Your task to perform on an android device: find snoozed emails in the gmail app Image 0: 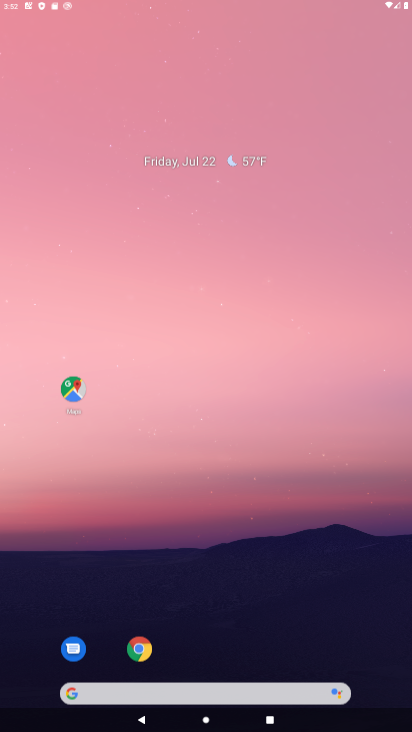
Step 0: drag from (235, 43) to (119, 87)
Your task to perform on an android device: find snoozed emails in the gmail app Image 1: 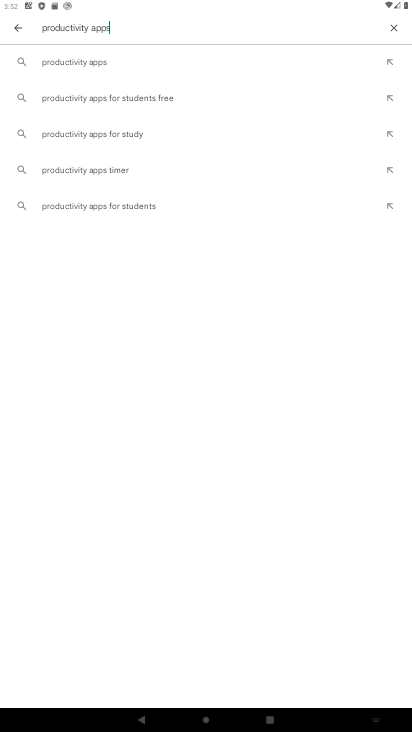
Step 1: press home button
Your task to perform on an android device: find snoozed emails in the gmail app Image 2: 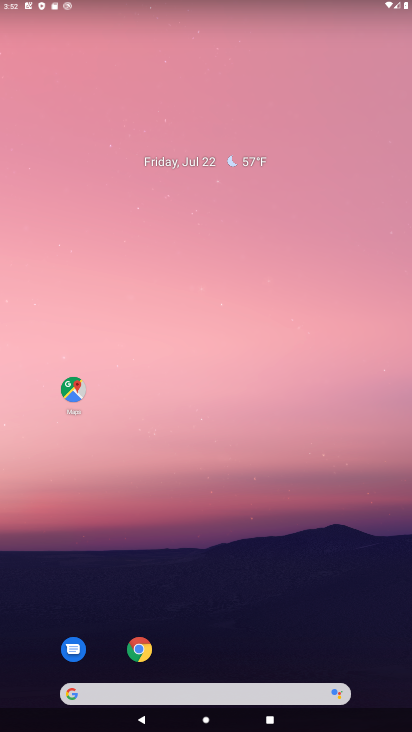
Step 2: drag from (69, 648) to (274, 274)
Your task to perform on an android device: find snoozed emails in the gmail app Image 3: 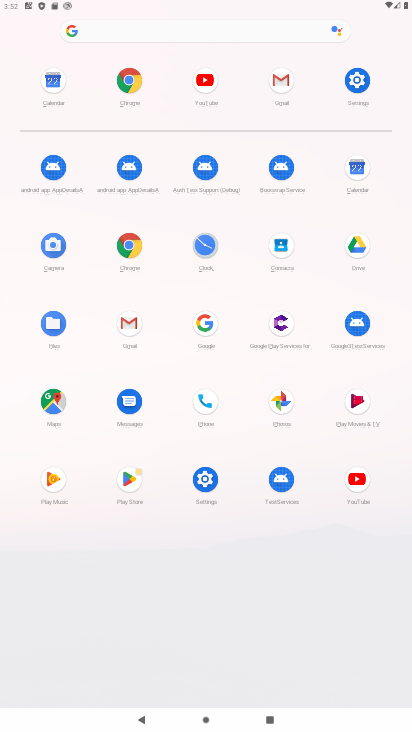
Step 3: click (118, 326)
Your task to perform on an android device: find snoozed emails in the gmail app Image 4: 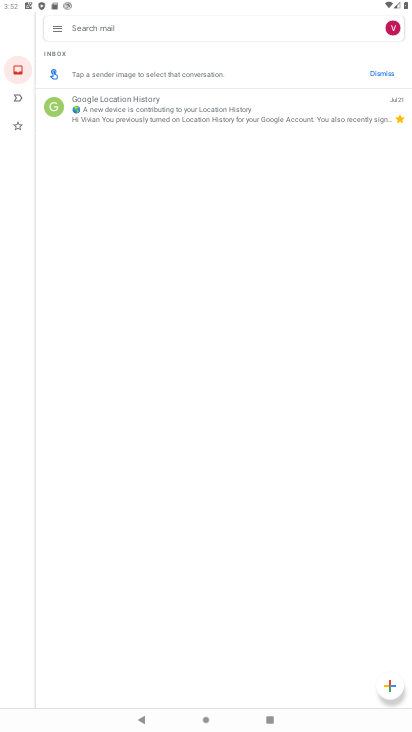
Step 4: click (63, 28)
Your task to perform on an android device: find snoozed emails in the gmail app Image 5: 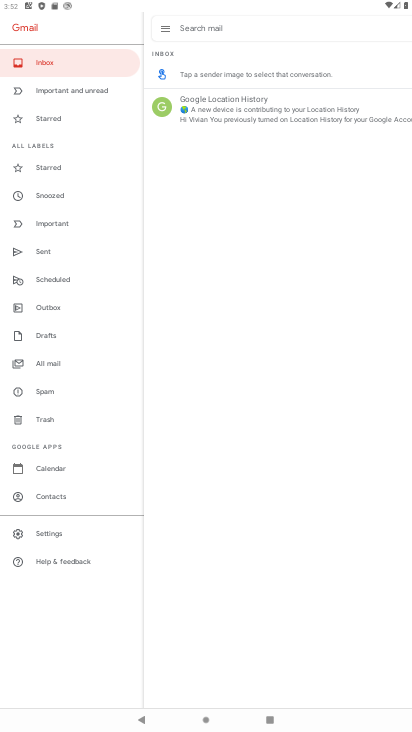
Step 5: click (57, 195)
Your task to perform on an android device: find snoozed emails in the gmail app Image 6: 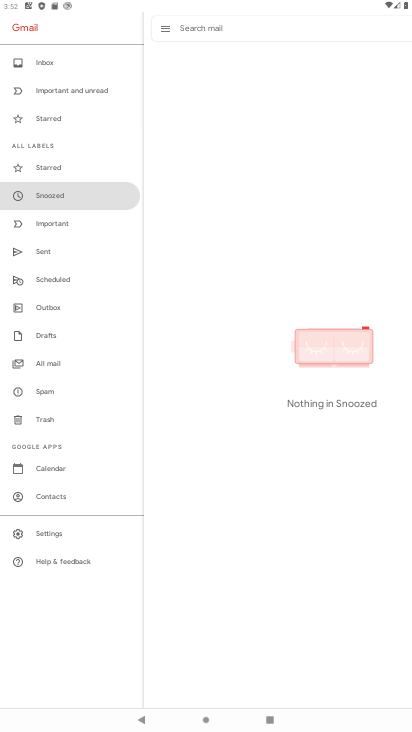
Step 6: task complete